Your task to perform on an android device: turn on the 24-hour format for clock Image 0: 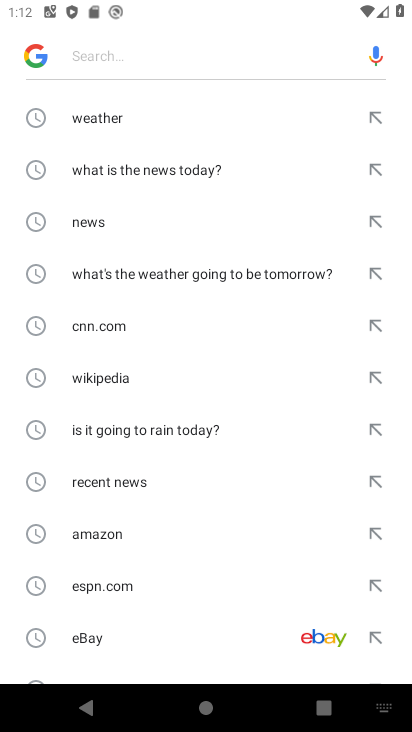
Step 0: press home button
Your task to perform on an android device: turn on the 24-hour format for clock Image 1: 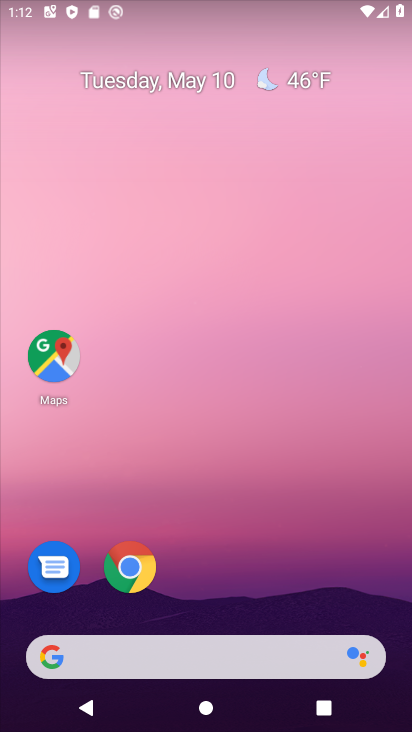
Step 1: drag from (290, 583) to (296, 68)
Your task to perform on an android device: turn on the 24-hour format for clock Image 2: 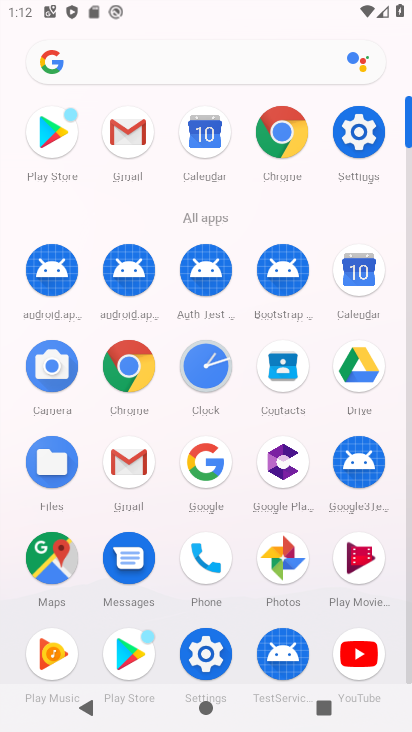
Step 2: click (195, 371)
Your task to perform on an android device: turn on the 24-hour format for clock Image 3: 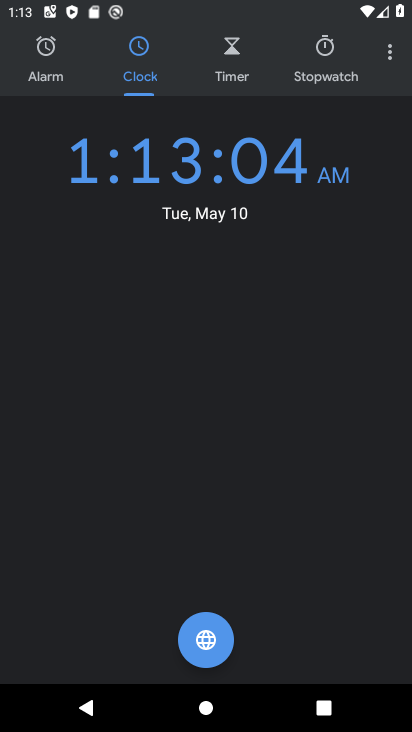
Step 3: click (382, 55)
Your task to perform on an android device: turn on the 24-hour format for clock Image 4: 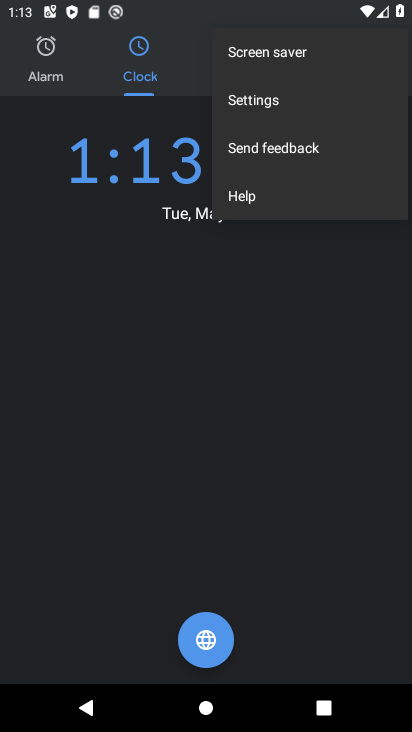
Step 4: click (290, 103)
Your task to perform on an android device: turn on the 24-hour format for clock Image 5: 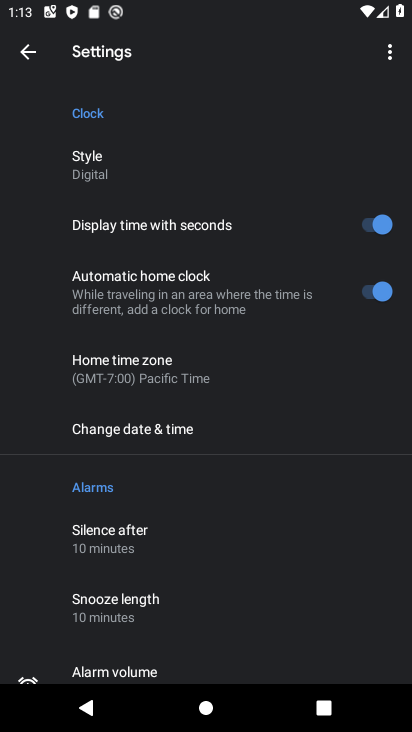
Step 5: click (209, 427)
Your task to perform on an android device: turn on the 24-hour format for clock Image 6: 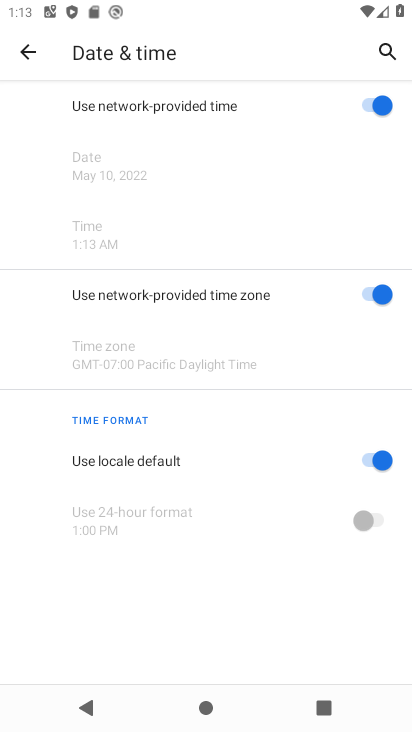
Step 6: click (388, 463)
Your task to perform on an android device: turn on the 24-hour format for clock Image 7: 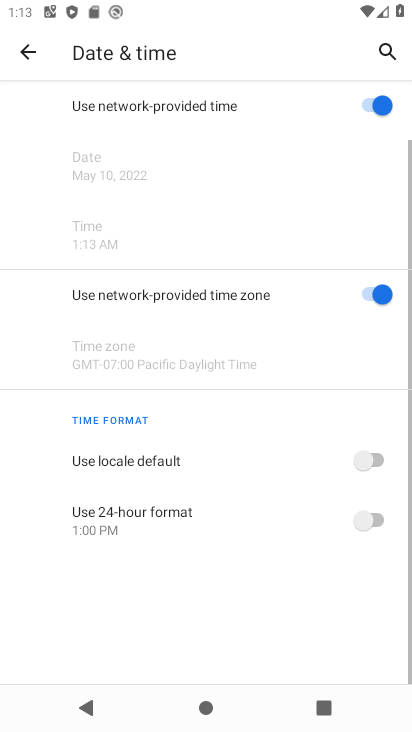
Step 7: click (377, 521)
Your task to perform on an android device: turn on the 24-hour format for clock Image 8: 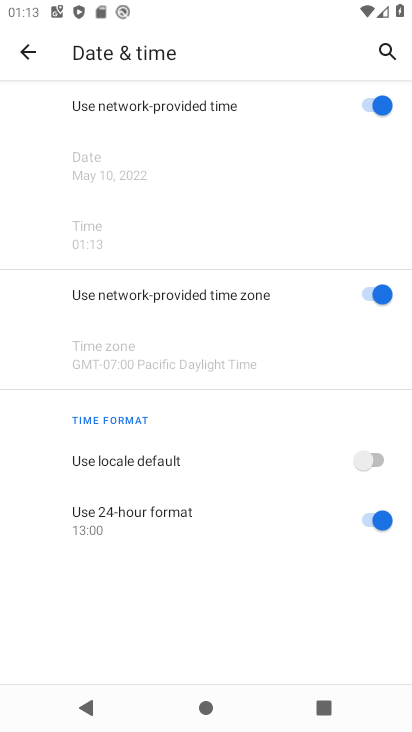
Step 8: task complete